Your task to perform on an android device: Go to Reddit.com Image 0: 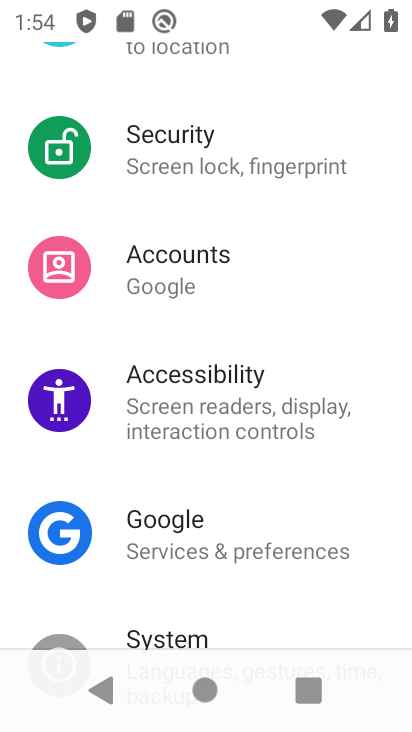
Step 0: press home button
Your task to perform on an android device: Go to Reddit.com Image 1: 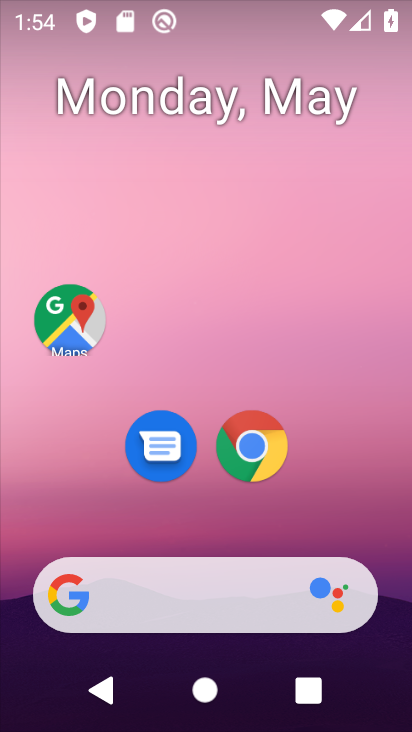
Step 1: drag from (323, 477) to (357, 160)
Your task to perform on an android device: Go to Reddit.com Image 2: 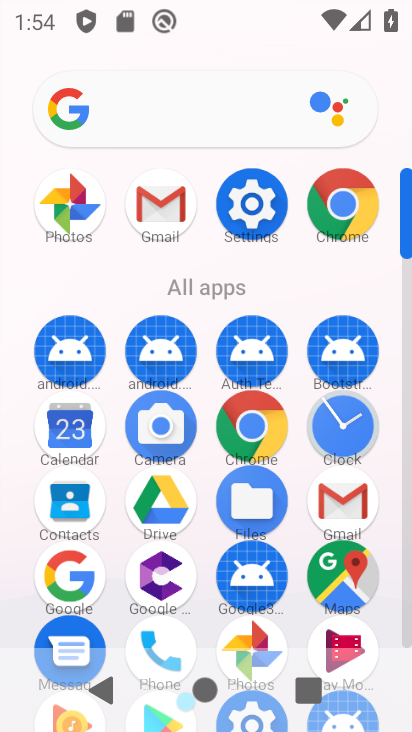
Step 2: click (276, 423)
Your task to perform on an android device: Go to Reddit.com Image 3: 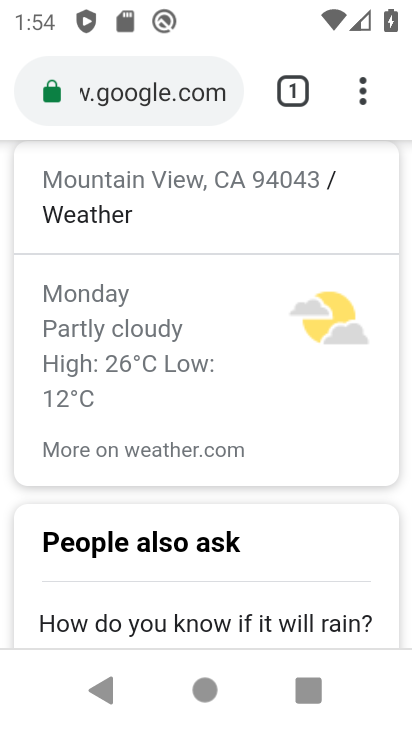
Step 3: click (179, 83)
Your task to perform on an android device: Go to Reddit.com Image 4: 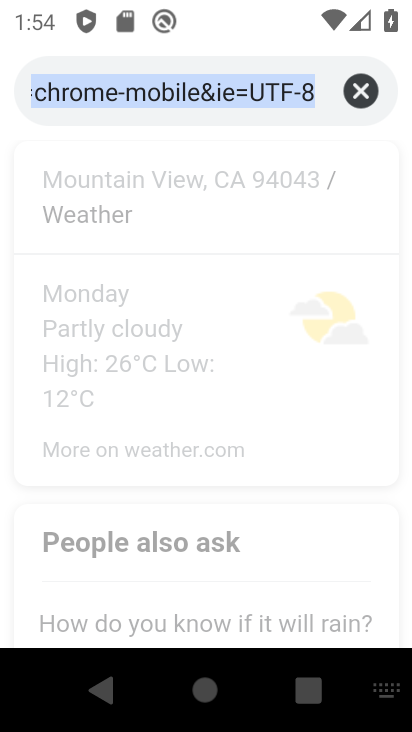
Step 4: click (355, 82)
Your task to perform on an android device: Go to Reddit.com Image 5: 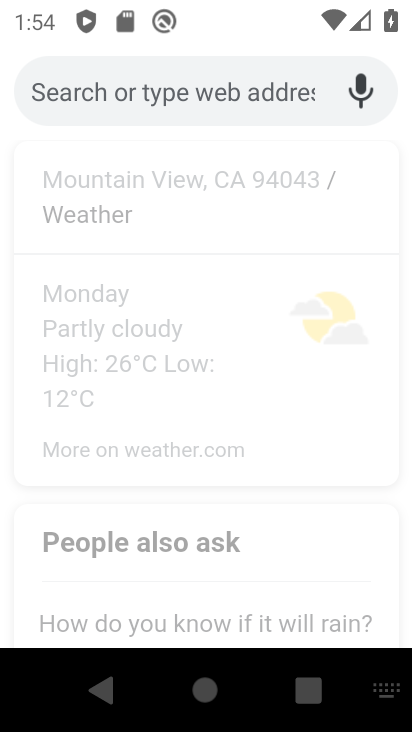
Step 5: type "reddit.com"
Your task to perform on an android device: Go to Reddit.com Image 6: 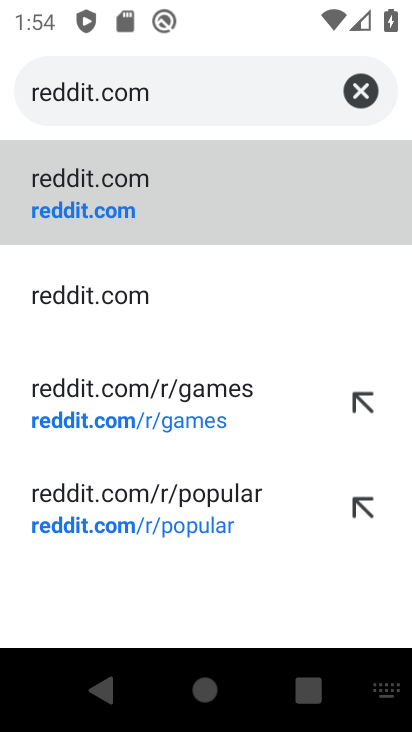
Step 6: click (42, 205)
Your task to perform on an android device: Go to Reddit.com Image 7: 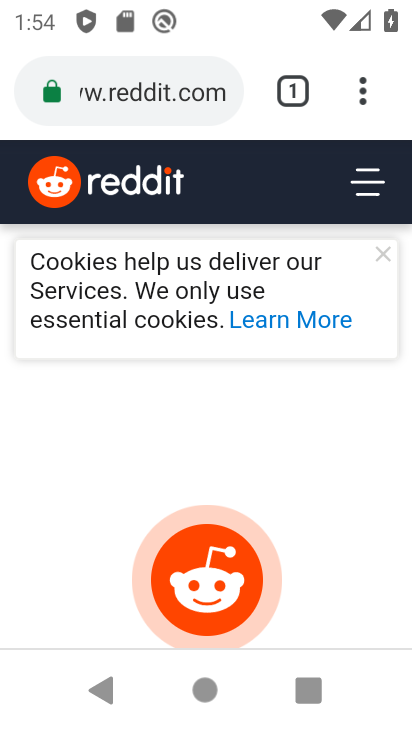
Step 7: task complete